Your task to perform on an android device: What is the recent news? Image 0: 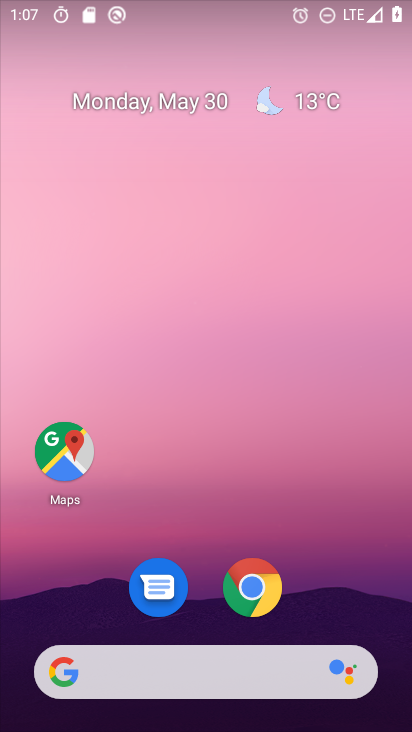
Step 0: drag from (309, 349) to (289, 127)
Your task to perform on an android device: What is the recent news? Image 1: 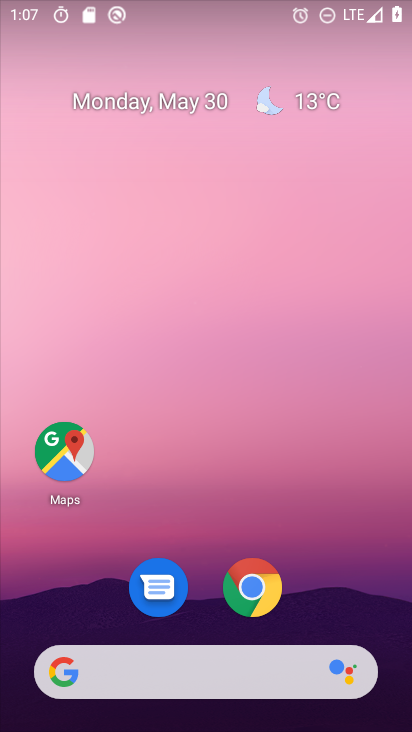
Step 1: drag from (351, 620) to (282, 94)
Your task to perform on an android device: What is the recent news? Image 2: 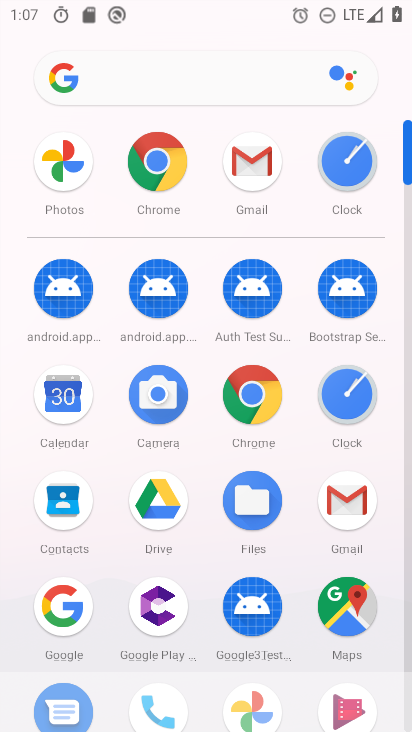
Step 2: click (256, 400)
Your task to perform on an android device: What is the recent news? Image 3: 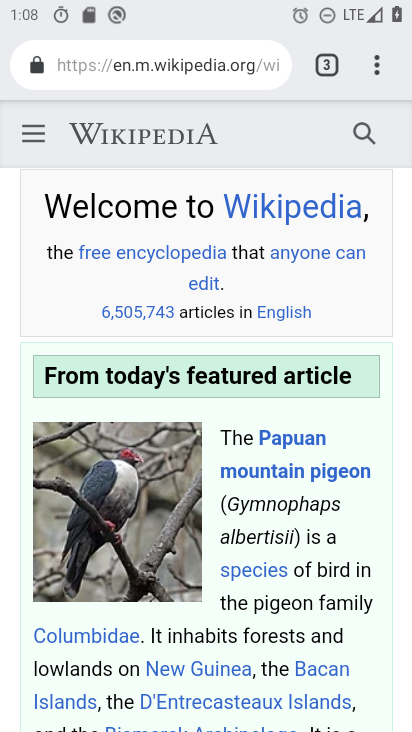
Step 3: click (199, 72)
Your task to perform on an android device: What is the recent news? Image 4: 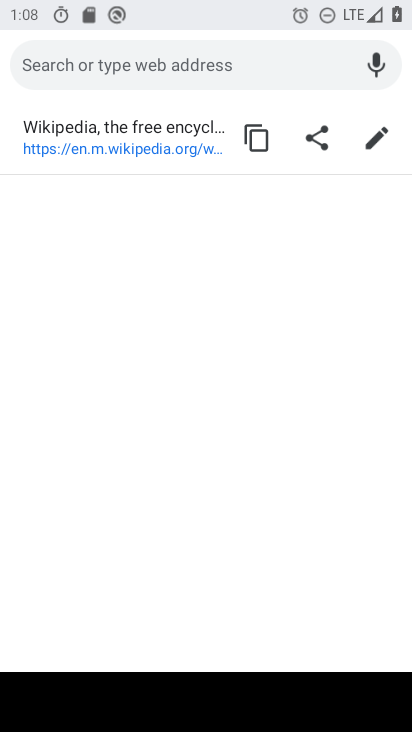
Step 4: type "news"
Your task to perform on an android device: What is the recent news? Image 5: 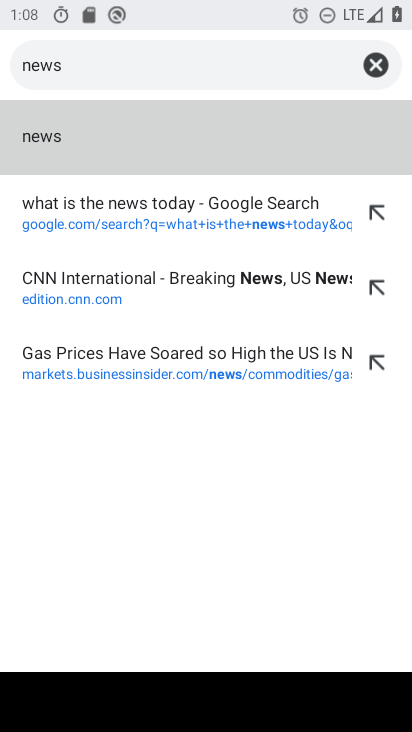
Step 5: click (55, 135)
Your task to perform on an android device: What is the recent news? Image 6: 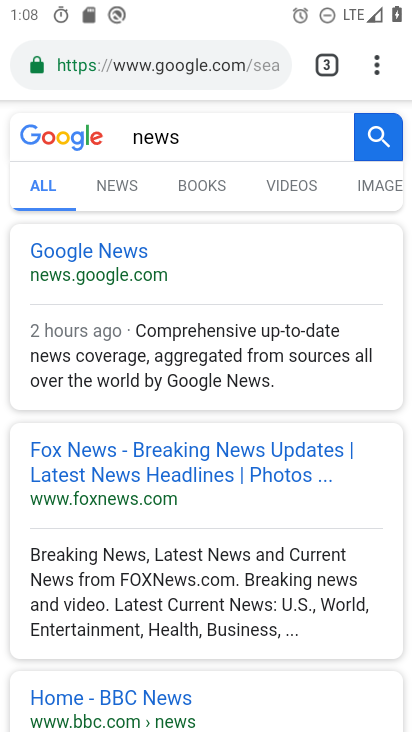
Step 6: click (108, 188)
Your task to perform on an android device: What is the recent news? Image 7: 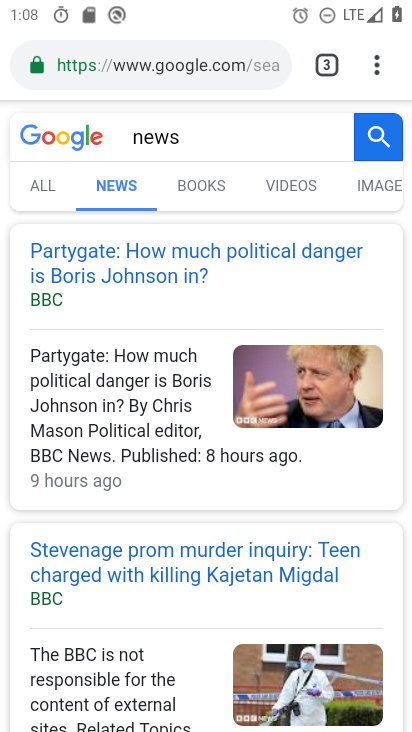
Step 7: task complete